Your task to perform on an android device: Show me popular games on the Play Store Image 0: 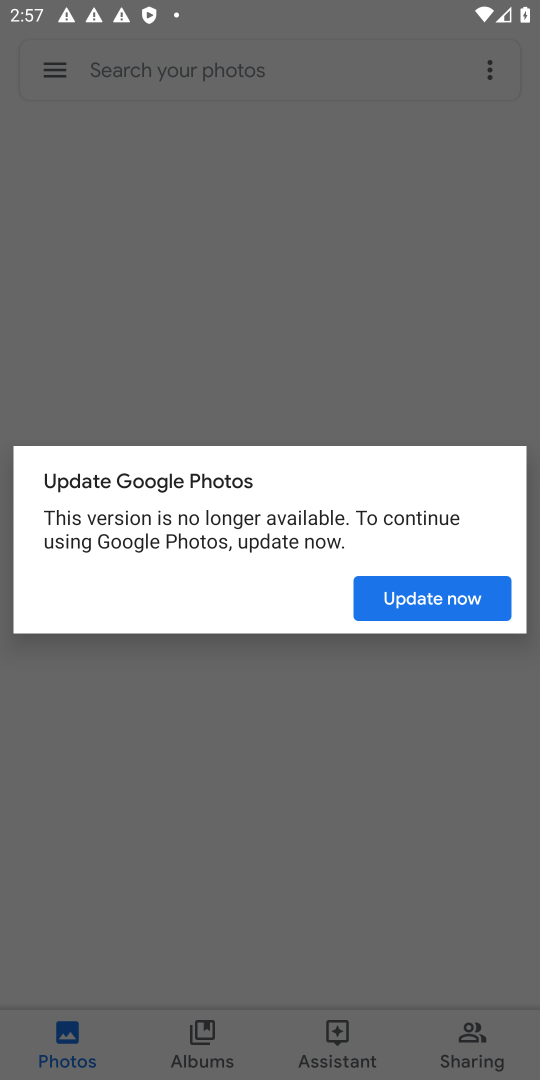
Step 0: press home button
Your task to perform on an android device: Show me popular games on the Play Store Image 1: 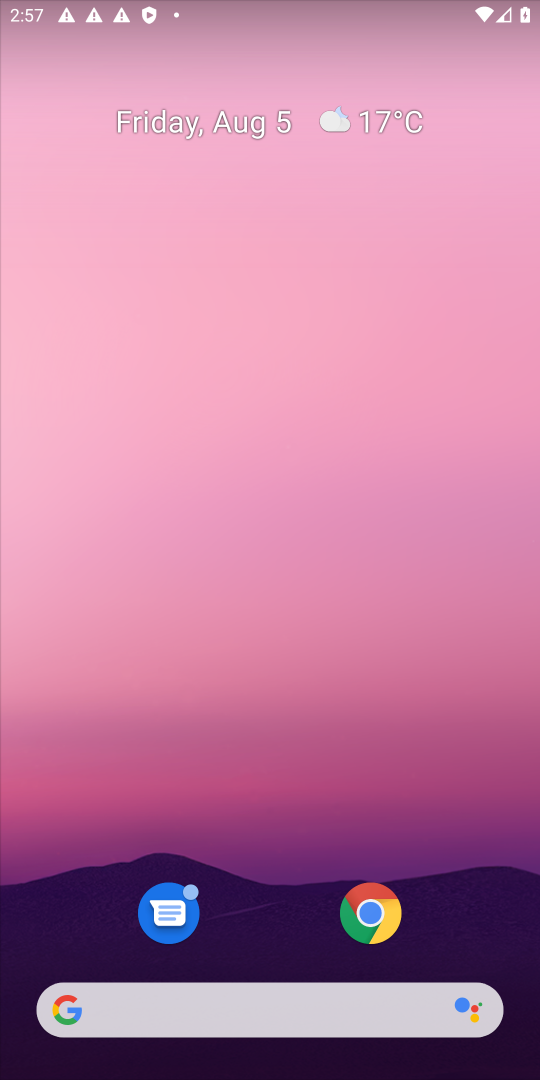
Step 1: press home button
Your task to perform on an android device: Show me popular games on the Play Store Image 2: 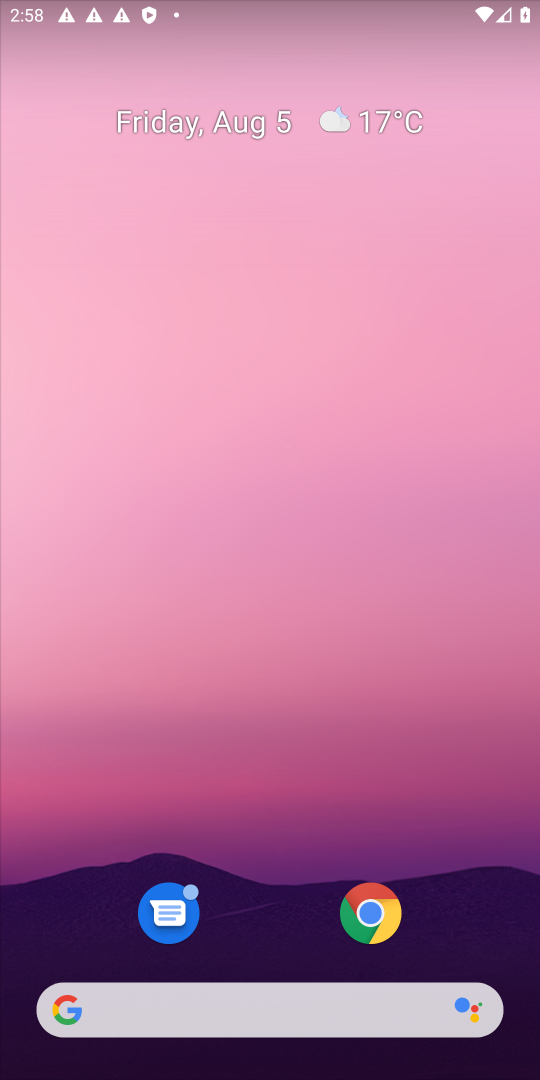
Step 2: drag from (308, 826) to (423, 272)
Your task to perform on an android device: Show me popular games on the Play Store Image 3: 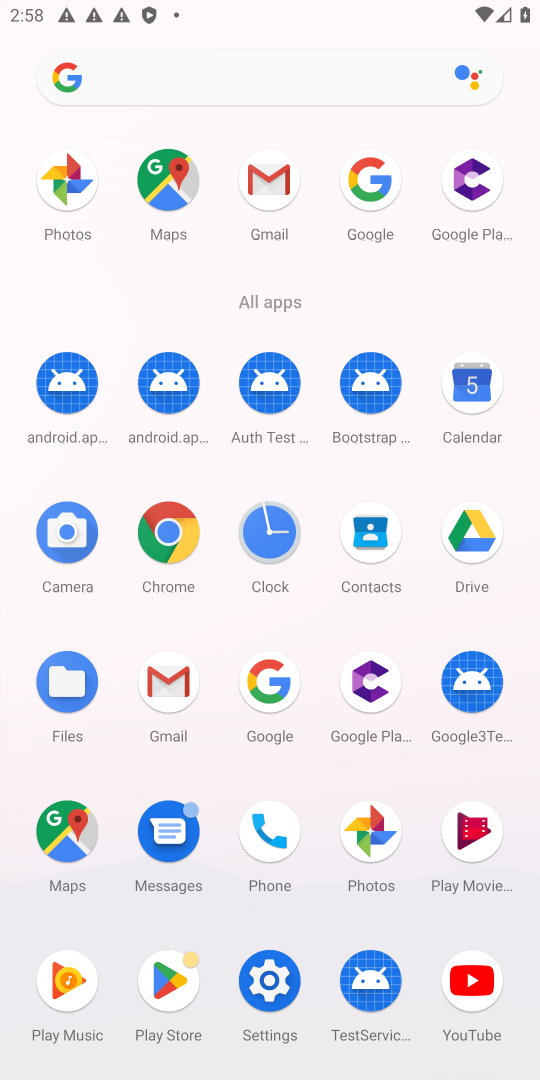
Step 3: click (166, 984)
Your task to perform on an android device: Show me popular games on the Play Store Image 4: 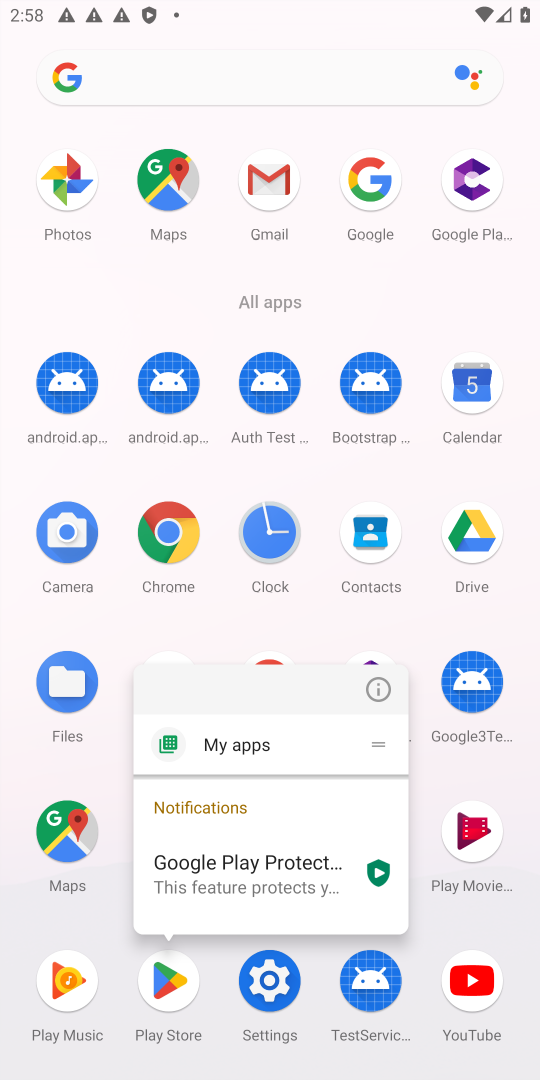
Step 4: click (166, 985)
Your task to perform on an android device: Show me popular games on the Play Store Image 5: 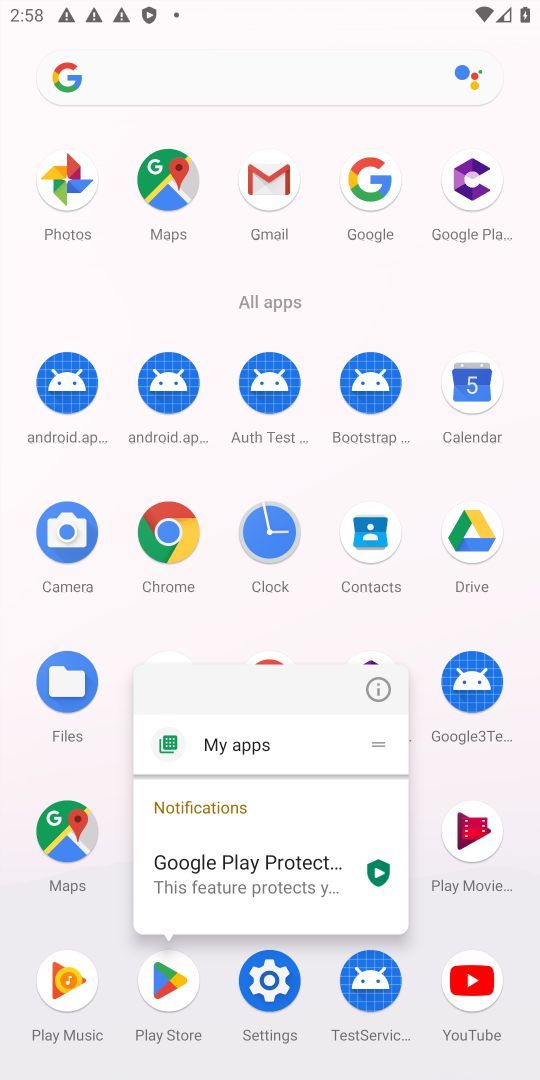
Step 5: click (166, 984)
Your task to perform on an android device: Show me popular games on the Play Store Image 6: 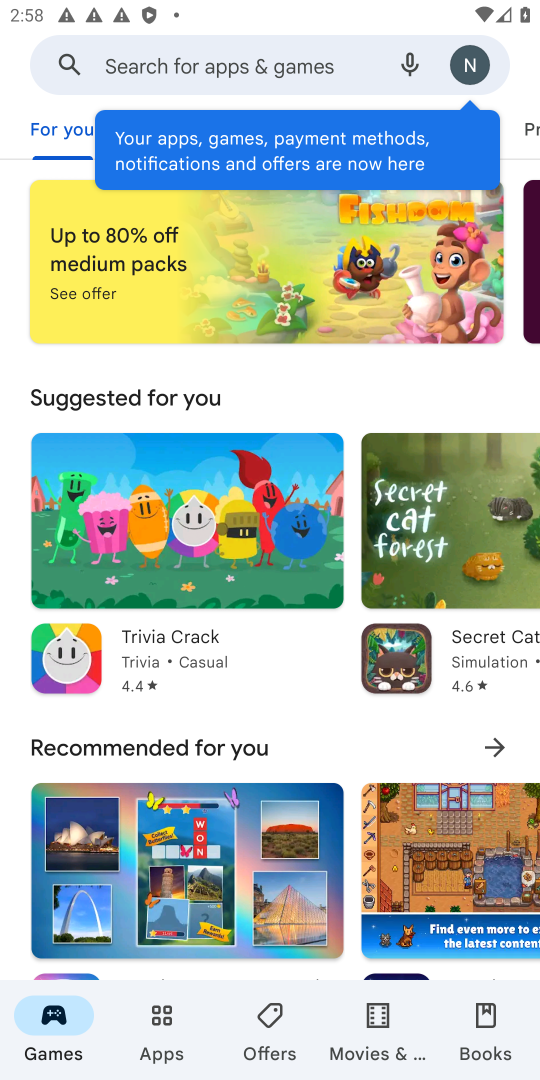
Step 6: task complete